Your task to perform on an android device: toggle airplane mode Image 0: 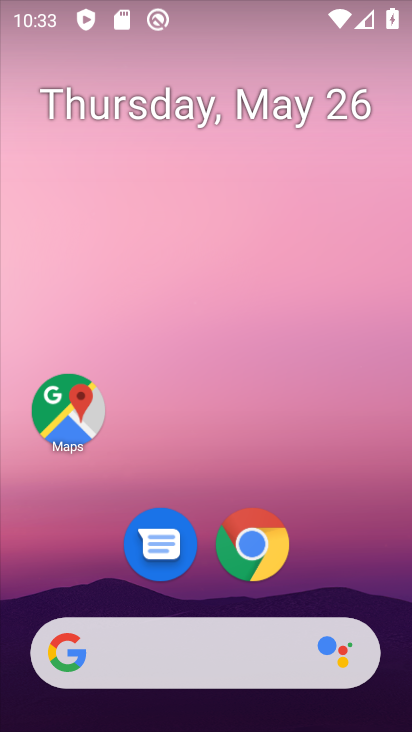
Step 0: drag from (335, 587) to (269, 16)
Your task to perform on an android device: toggle airplane mode Image 1: 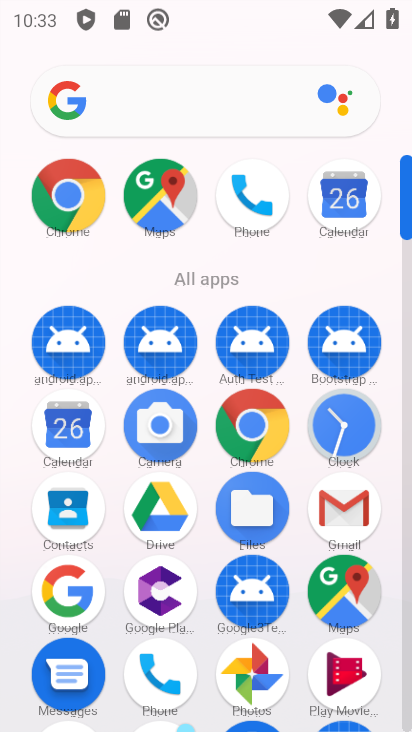
Step 1: drag from (1, 608) to (9, 275)
Your task to perform on an android device: toggle airplane mode Image 2: 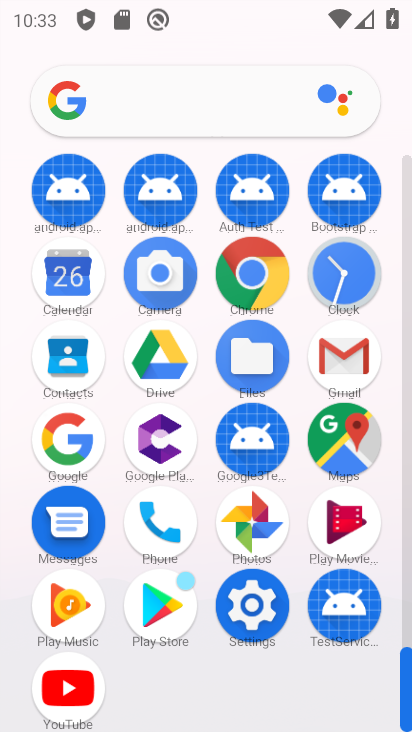
Step 2: click (249, 606)
Your task to perform on an android device: toggle airplane mode Image 3: 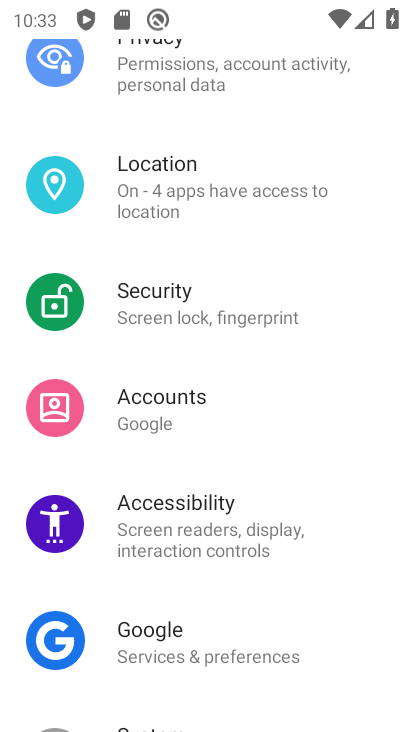
Step 3: drag from (259, 142) to (273, 609)
Your task to perform on an android device: toggle airplane mode Image 4: 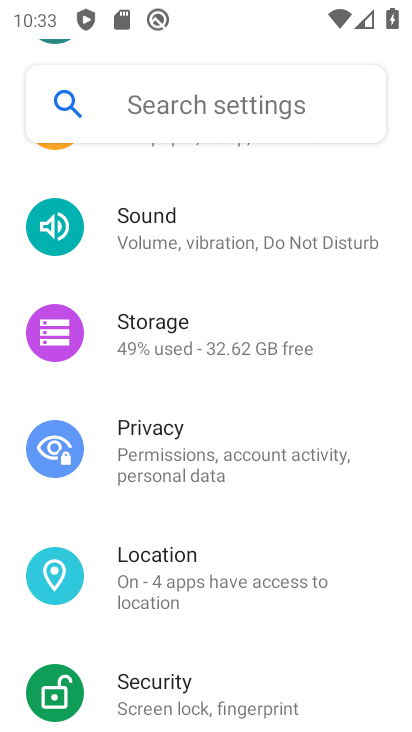
Step 4: drag from (229, 187) to (231, 590)
Your task to perform on an android device: toggle airplane mode Image 5: 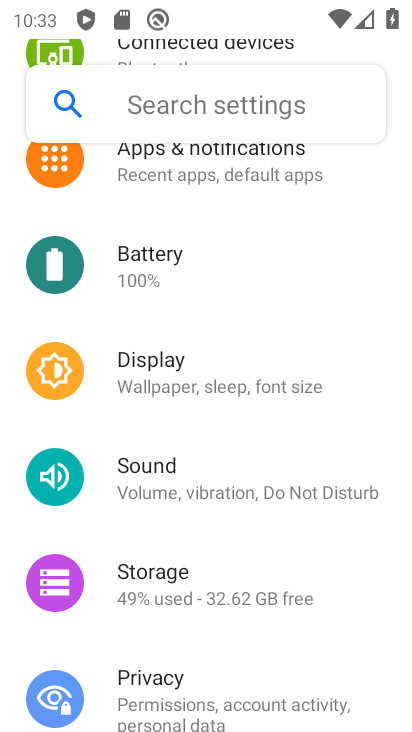
Step 5: drag from (263, 220) to (296, 618)
Your task to perform on an android device: toggle airplane mode Image 6: 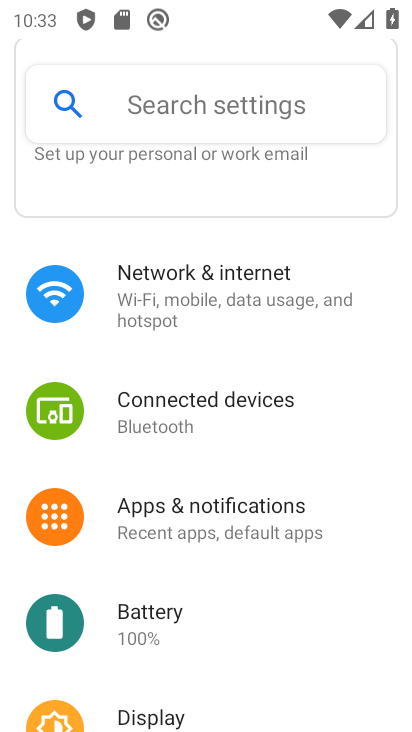
Step 6: click (255, 273)
Your task to perform on an android device: toggle airplane mode Image 7: 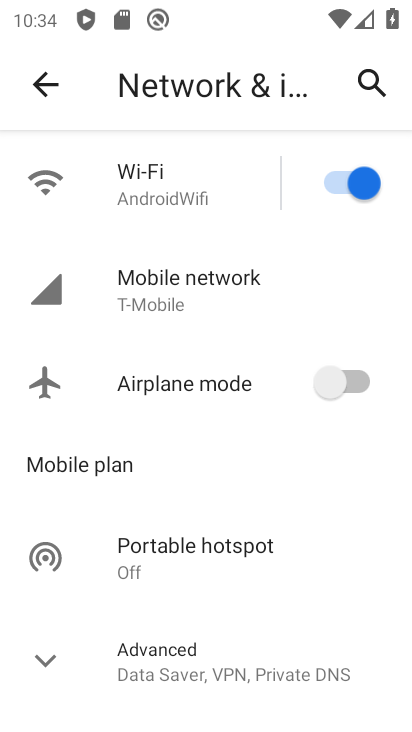
Step 7: click (325, 383)
Your task to perform on an android device: toggle airplane mode Image 8: 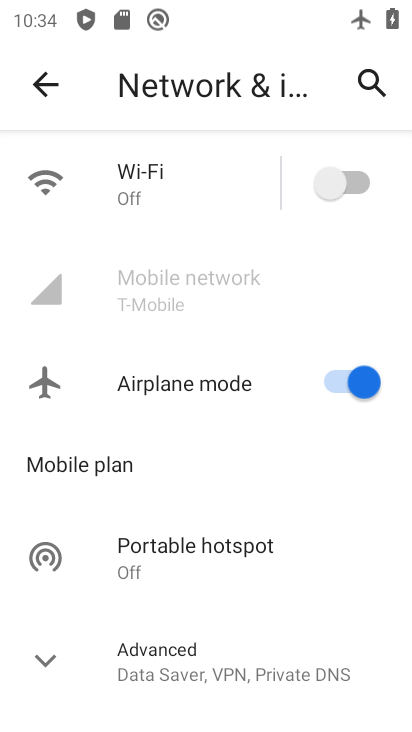
Step 8: task complete